Your task to perform on an android device: check the backup settings in the google photos Image 0: 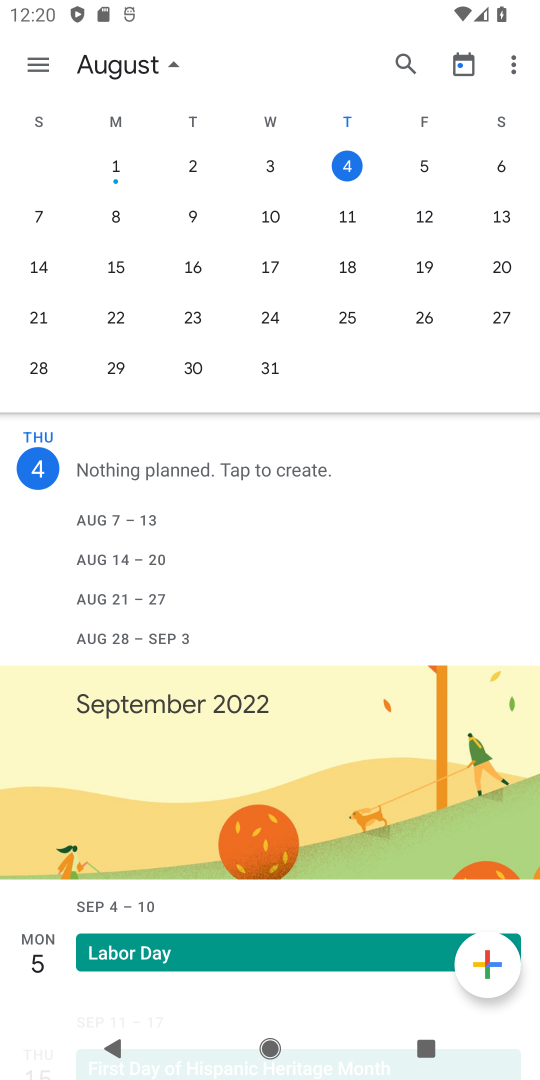
Step 0: press home button
Your task to perform on an android device: check the backup settings in the google photos Image 1: 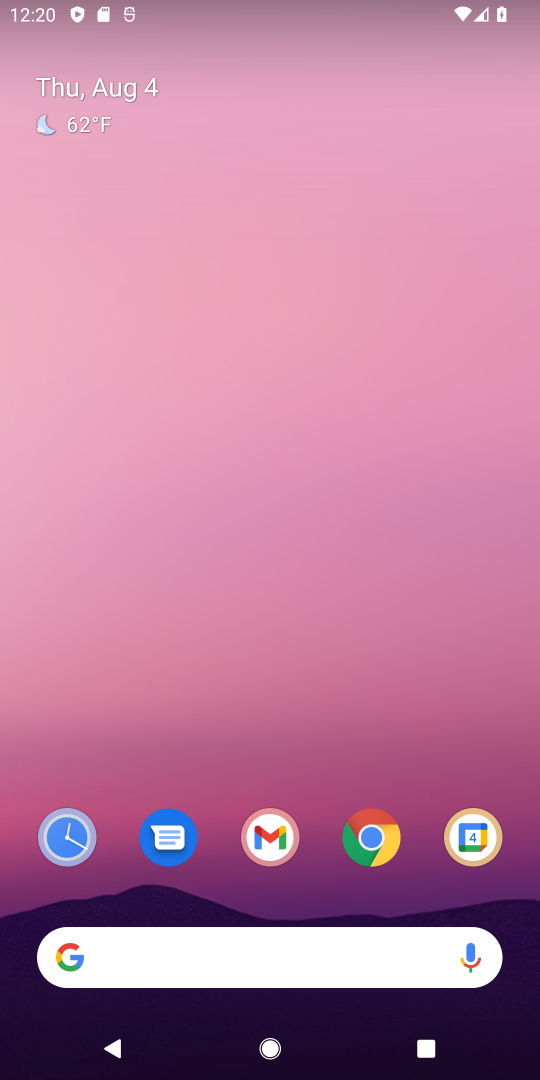
Step 1: drag from (227, 764) to (274, 9)
Your task to perform on an android device: check the backup settings in the google photos Image 2: 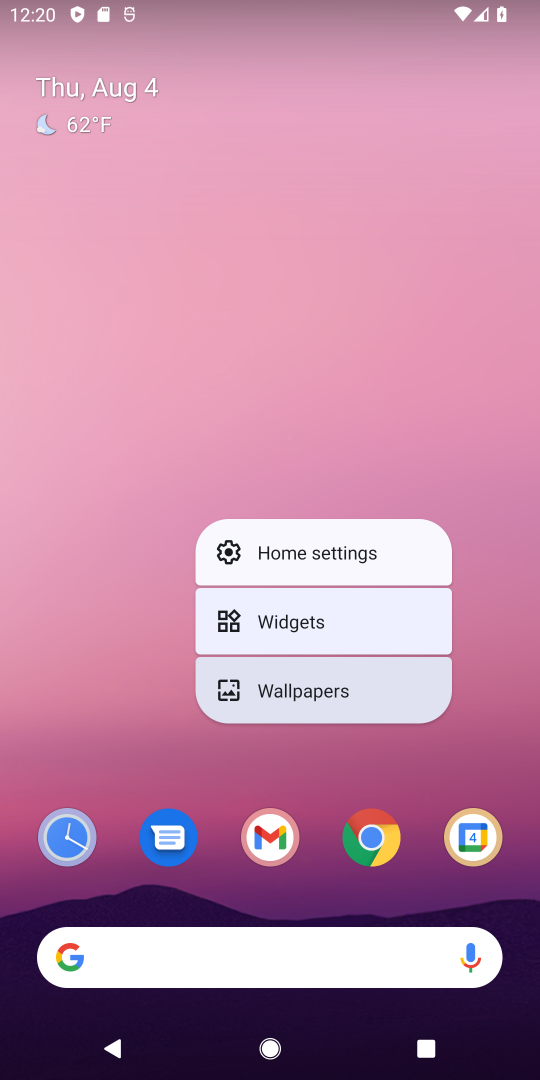
Step 2: click (263, 197)
Your task to perform on an android device: check the backup settings in the google photos Image 3: 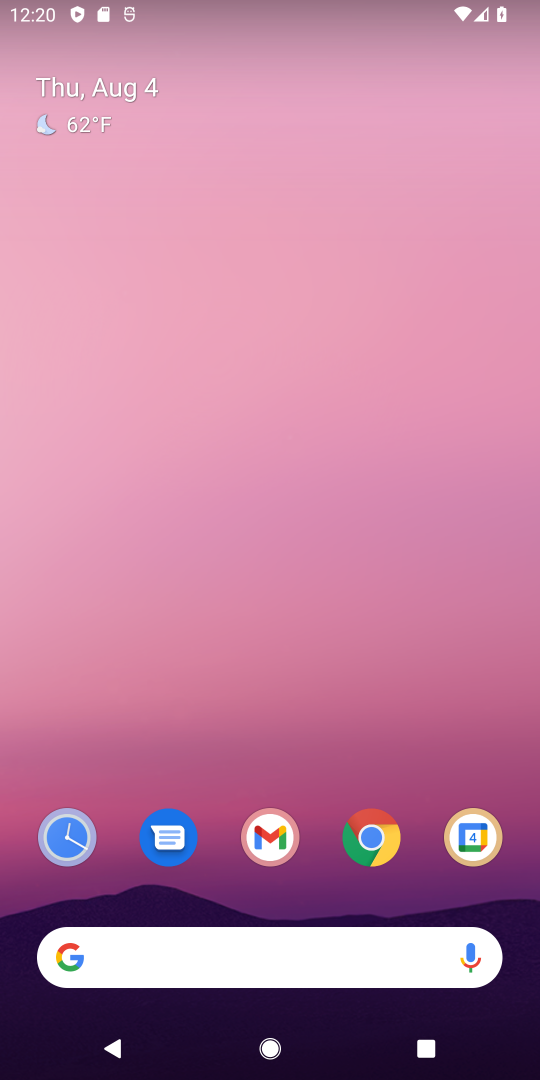
Step 3: drag from (203, 808) to (153, 65)
Your task to perform on an android device: check the backup settings in the google photos Image 4: 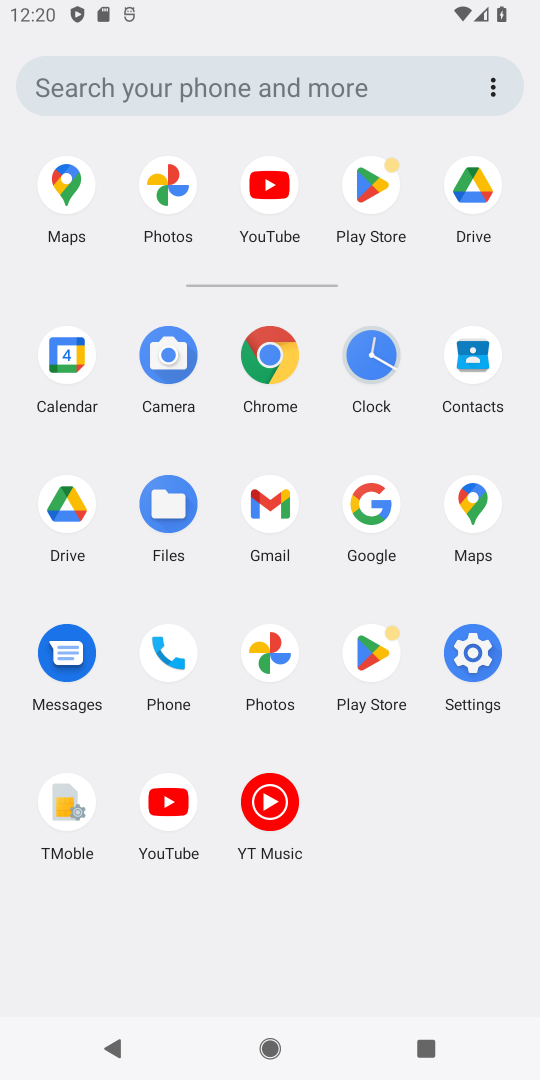
Step 4: click (164, 199)
Your task to perform on an android device: check the backup settings in the google photos Image 5: 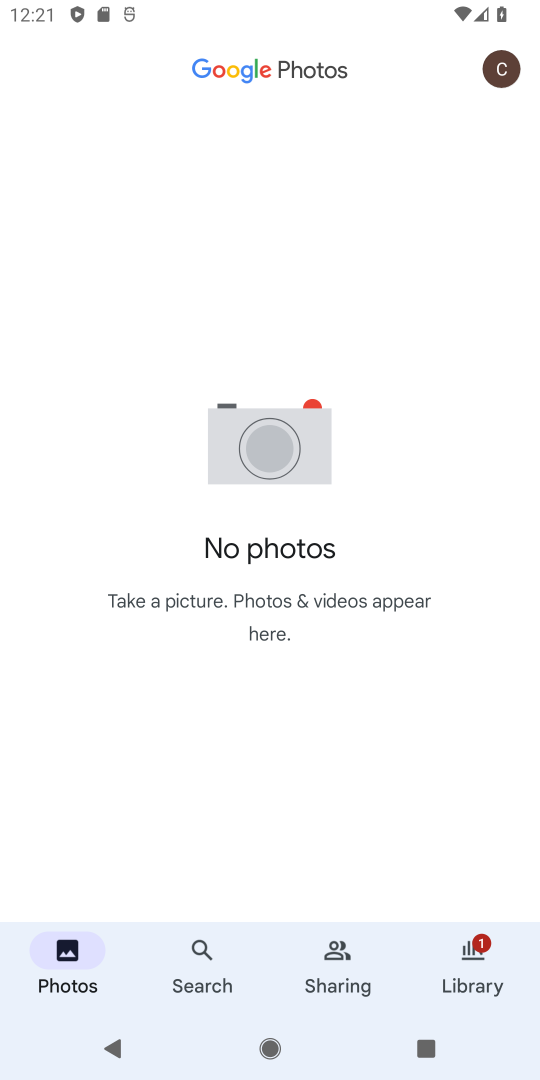
Step 5: click (502, 79)
Your task to perform on an android device: check the backup settings in the google photos Image 6: 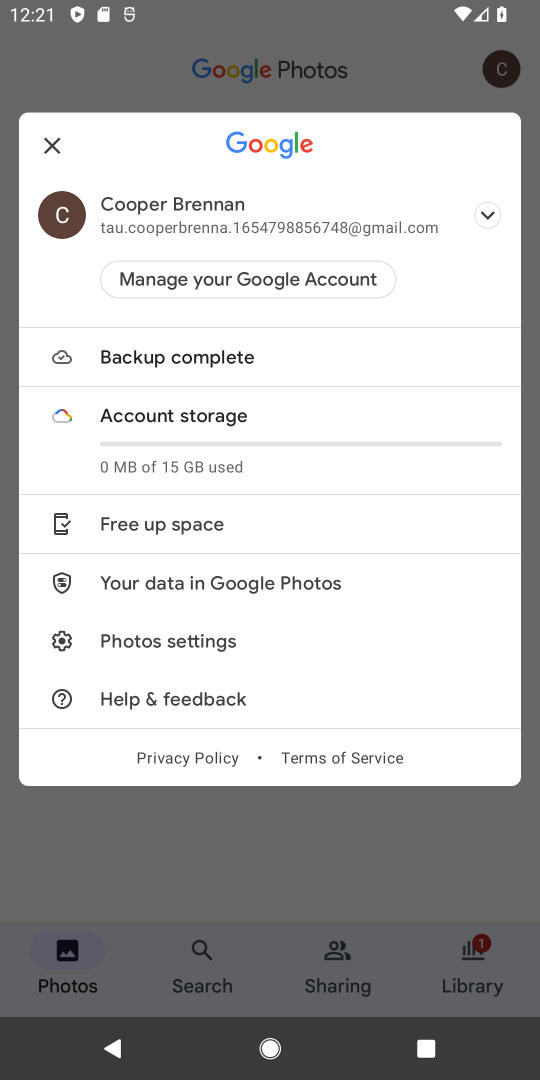
Step 6: click (210, 640)
Your task to perform on an android device: check the backup settings in the google photos Image 7: 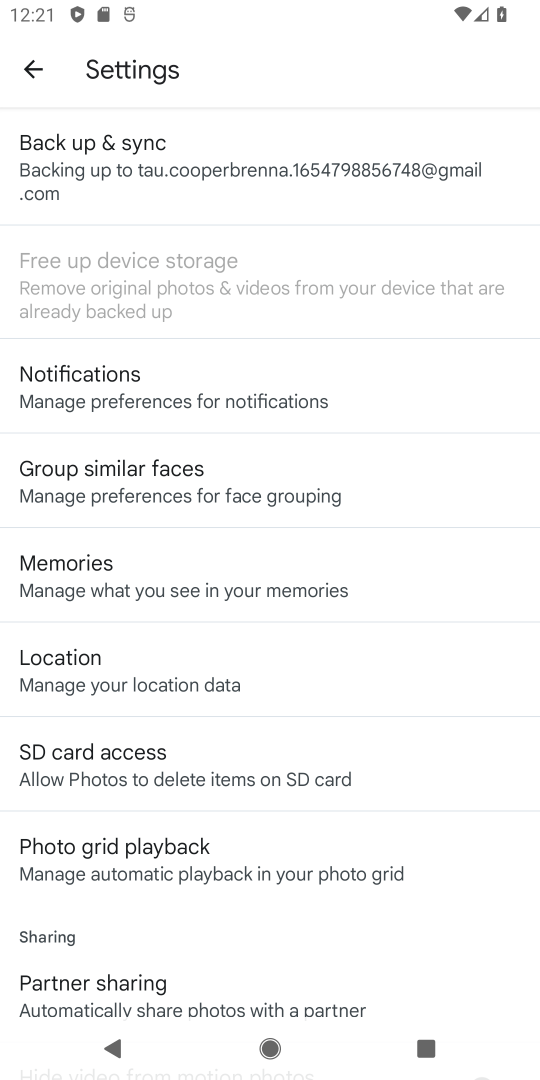
Step 7: click (227, 180)
Your task to perform on an android device: check the backup settings in the google photos Image 8: 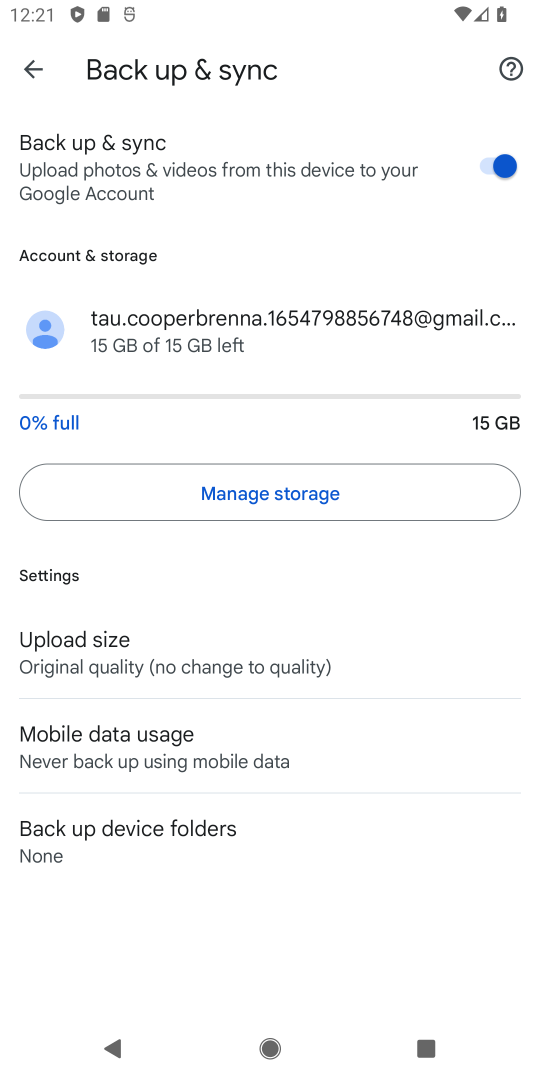
Step 8: task complete